Your task to perform on an android device: Go to Google maps Image 0: 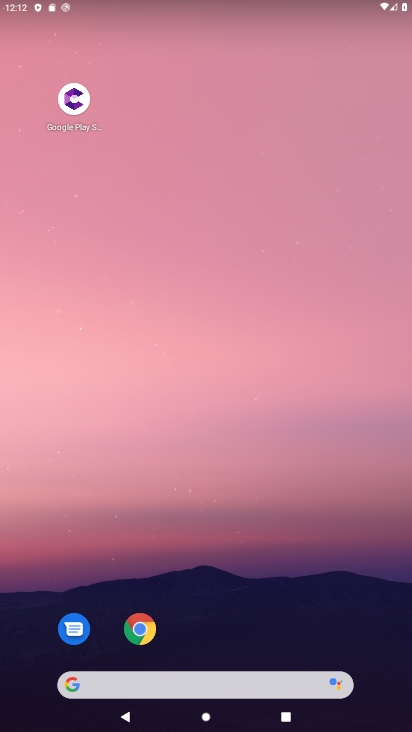
Step 0: drag from (303, 681) to (385, 17)
Your task to perform on an android device: Go to Google maps Image 1: 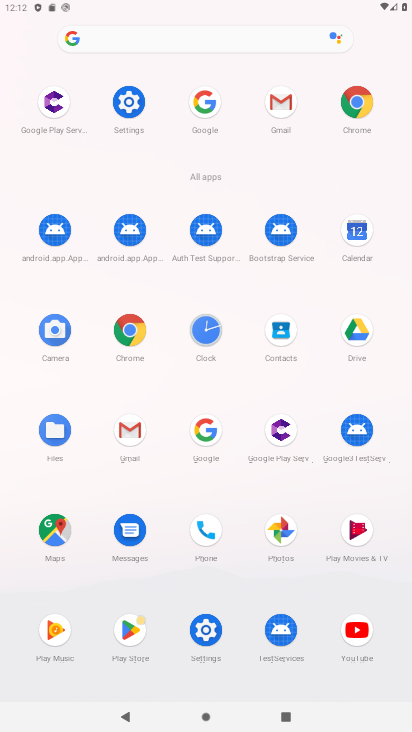
Step 1: click (50, 533)
Your task to perform on an android device: Go to Google maps Image 2: 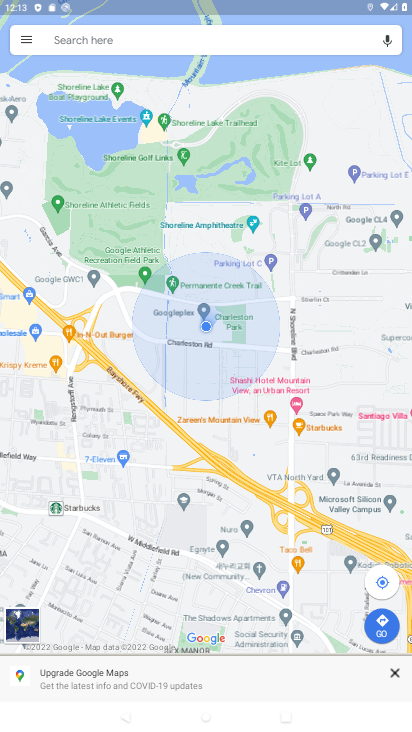
Step 2: task complete